Your task to perform on an android device: add a contact in the contacts app Image 0: 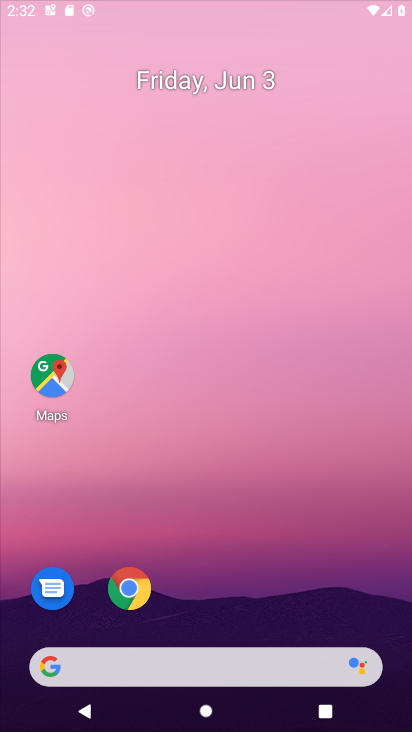
Step 0: drag from (188, 678) to (199, 19)
Your task to perform on an android device: add a contact in the contacts app Image 1: 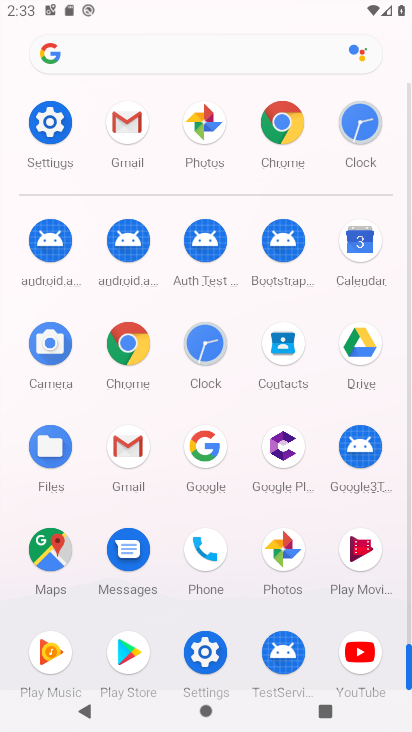
Step 1: click (281, 353)
Your task to perform on an android device: add a contact in the contacts app Image 2: 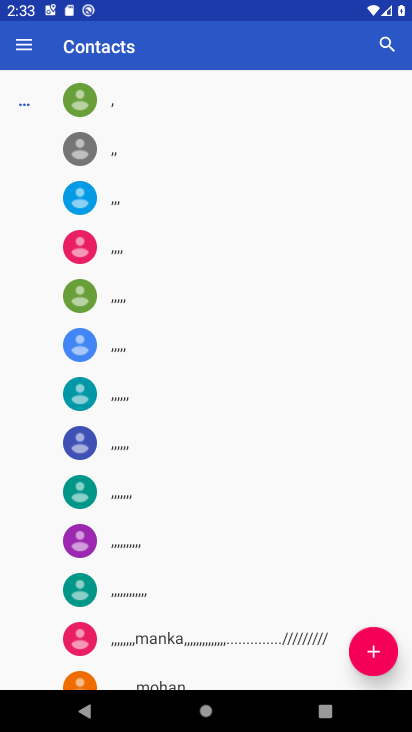
Step 2: click (370, 657)
Your task to perform on an android device: add a contact in the contacts app Image 3: 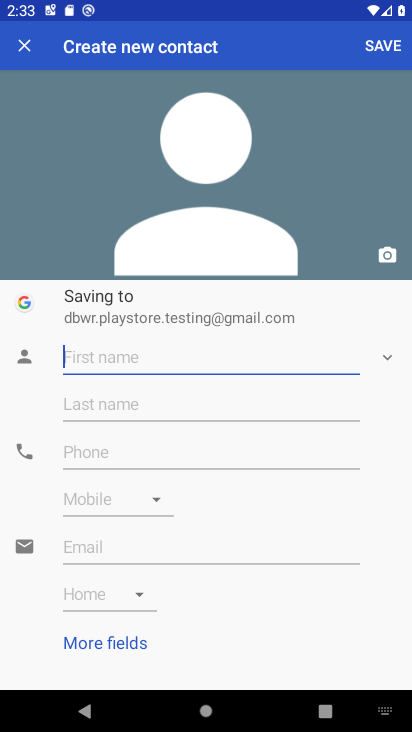
Step 3: type "kgfyg"
Your task to perform on an android device: add a contact in the contacts app Image 4: 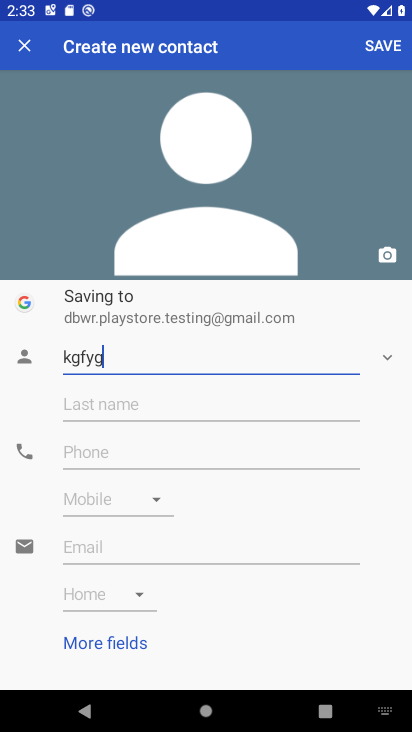
Step 4: click (226, 456)
Your task to perform on an android device: add a contact in the contacts app Image 5: 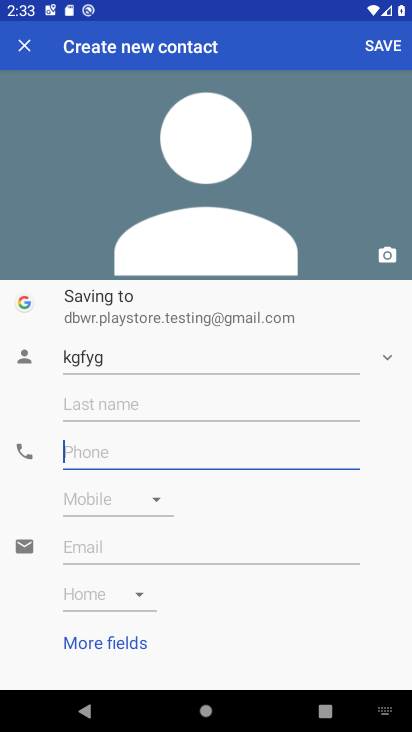
Step 5: type "0986756534"
Your task to perform on an android device: add a contact in the contacts app Image 6: 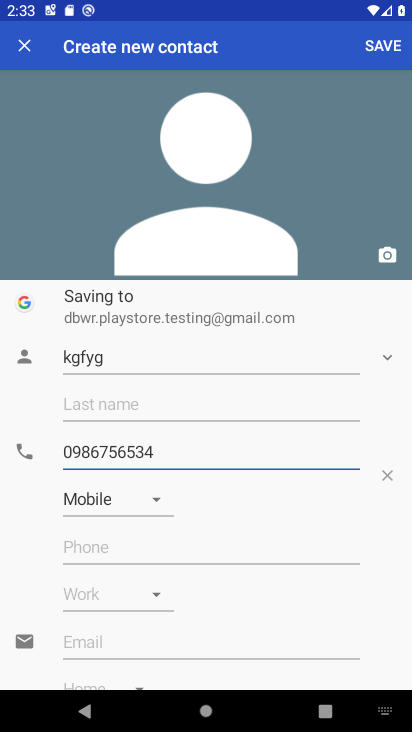
Step 6: click (386, 44)
Your task to perform on an android device: add a contact in the contacts app Image 7: 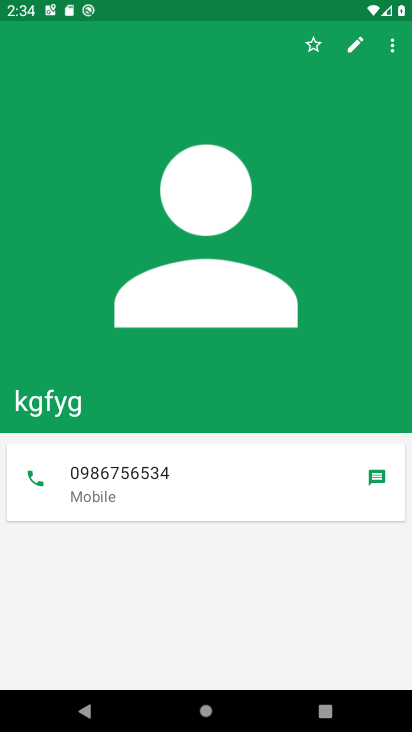
Step 7: task complete